Your task to perform on an android device: Go to calendar. Show me events next week Image 0: 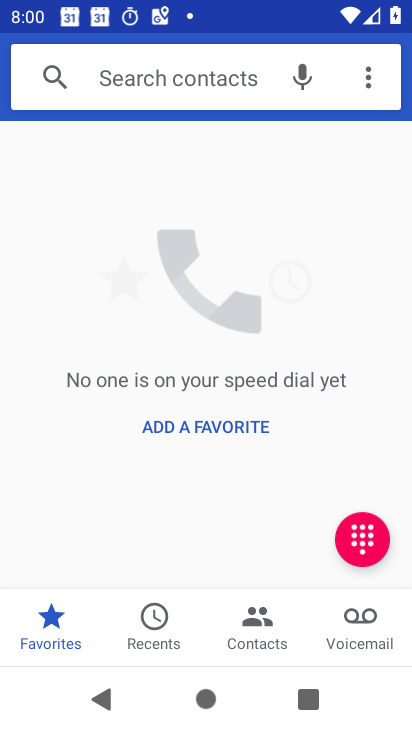
Step 0: press home button
Your task to perform on an android device: Go to calendar. Show me events next week Image 1: 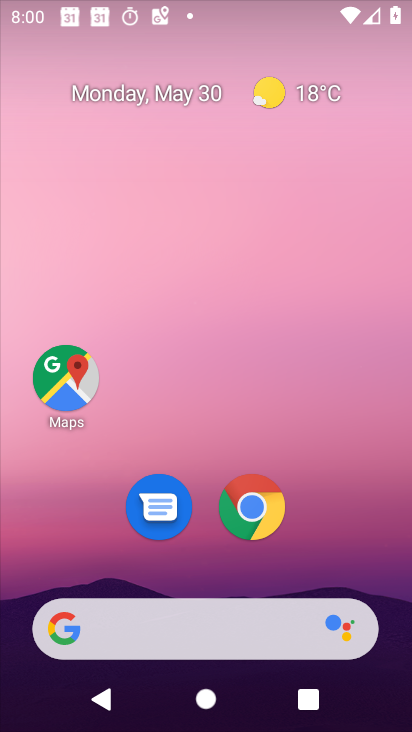
Step 1: drag from (315, 549) to (313, 184)
Your task to perform on an android device: Go to calendar. Show me events next week Image 2: 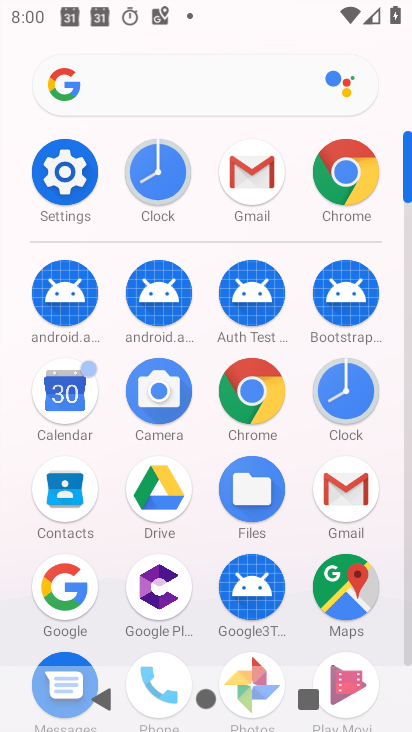
Step 2: click (64, 394)
Your task to perform on an android device: Go to calendar. Show me events next week Image 3: 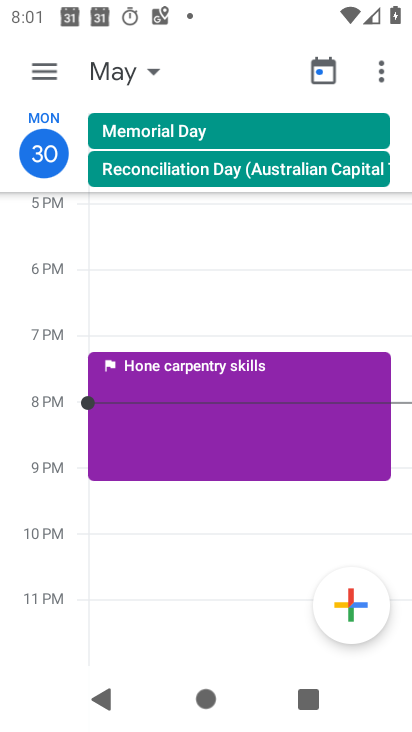
Step 3: click (126, 73)
Your task to perform on an android device: Go to calendar. Show me events next week Image 4: 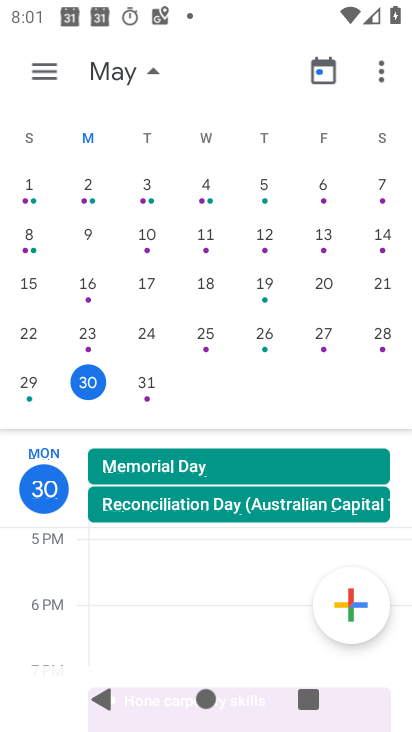
Step 4: drag from (272, 332) to (0, 298)
Your task to perform on an android device: Go to calendar. Show me events next week Image 5: 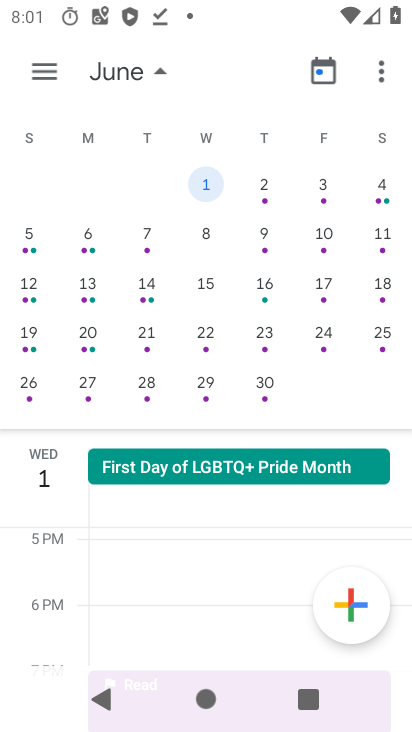
Step 5: click (29, 234)
Your task to perform on an android device: Go to calendar. Show me events next week Image 6: 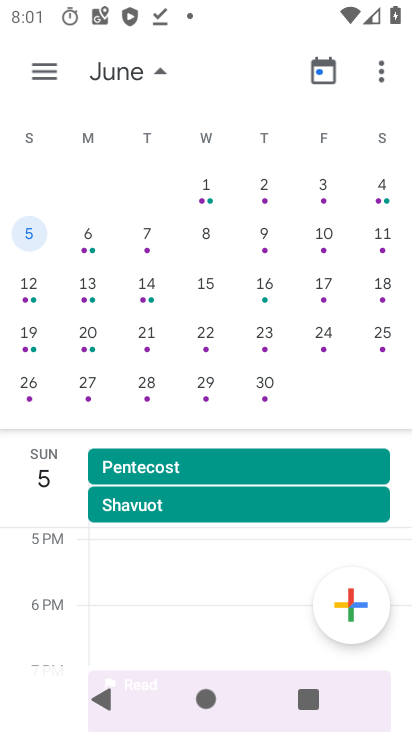
Step 6: drag from (110, 540) to (145, 237)
Your task to perform on an android device: Go to calendar. Show me events next week Image 7: 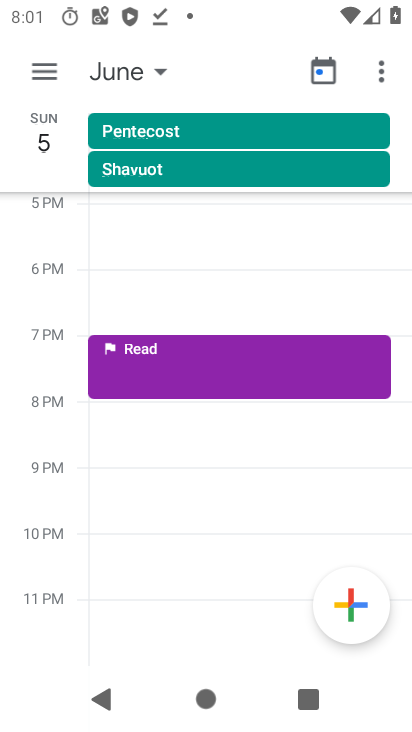
Step 7: click (61, 74)
Your task to perform on an android device: Go to calendar. Show me events next week Image 8: 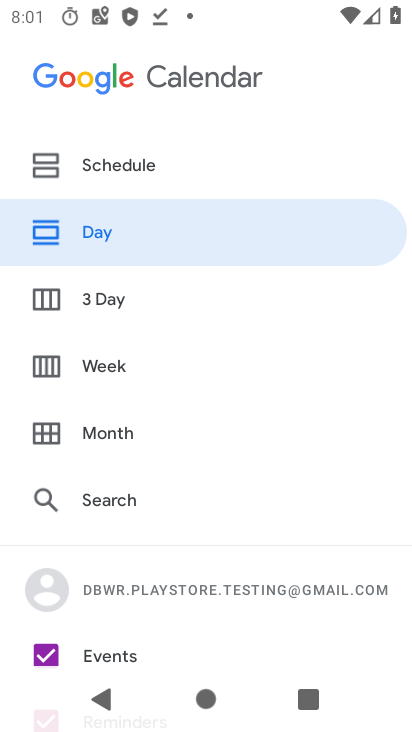
Step 8: click (73, 168)
Your task to perform on an android device: Go to calendar. Show me events next week Image 9: 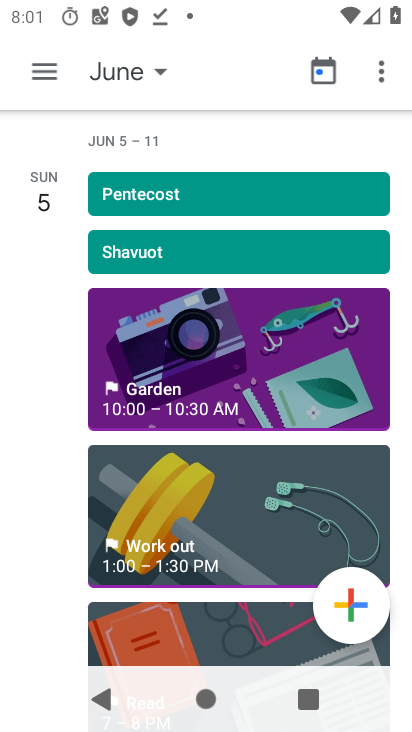
Step 9: task complete